Your task to perform on an android device: Go to Yahoo.com Image 0: 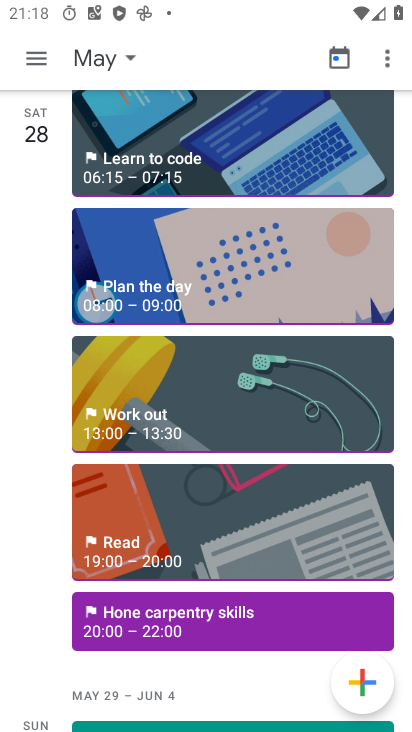
Step 0: press home button
Your task to perform on an android device: Go to Yahoo.com Image 1: 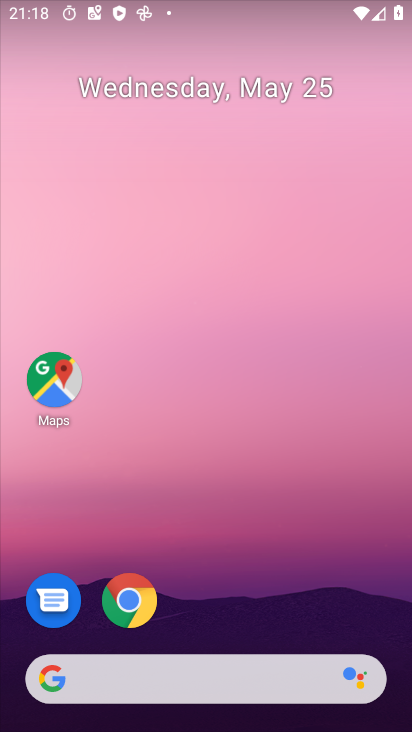
Step 1: drag from (375, 561) to (313, 75)
Your task to perform on an android device: Go to Yahoo.com Image 2: 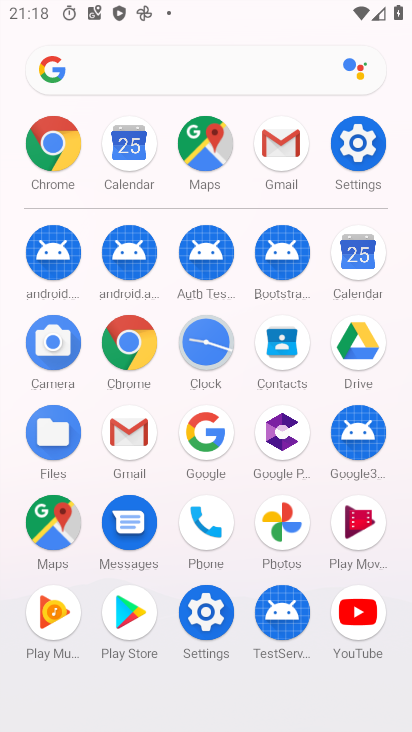
Step 2: click (135, 335)
Your task to perform on an android device: Go to Yahoo.com Image 3: 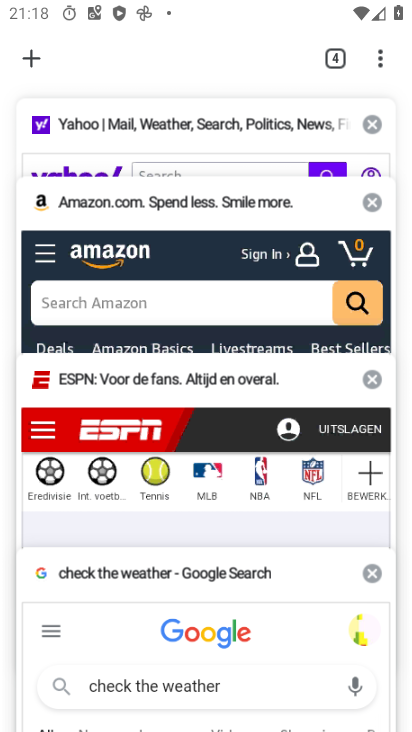
Step 3: click (23, 59)
Your task to perform on an android device: Go to Yahoo.com Image 4: 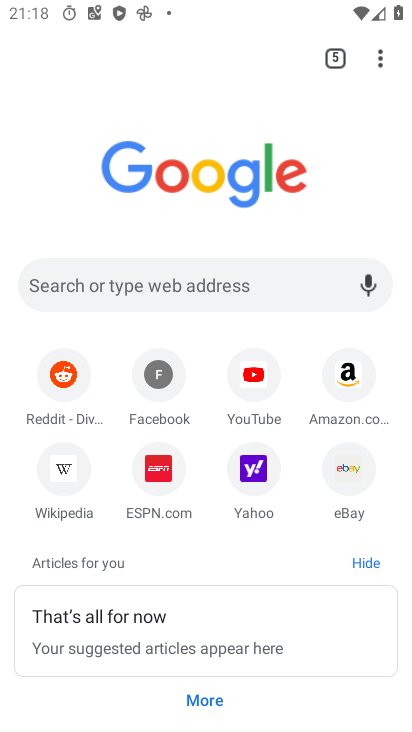
Step 4: click (191, 297)
Your task to perform on an android device: Go to Yahoo.com Image 5: 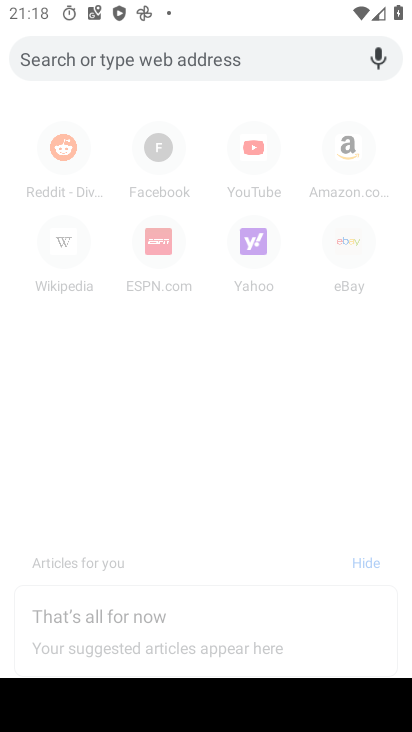
Step 5: type "yahoo.com'"
Your task to perform on an android device: Go to Yahoo.com Image 6: 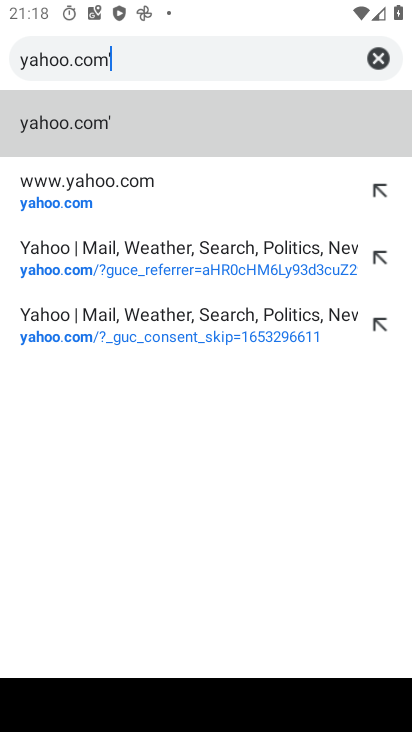
Step 6: click (52, 127)
Your task to perform on an android device: Go to Yahoo.com Image 7: 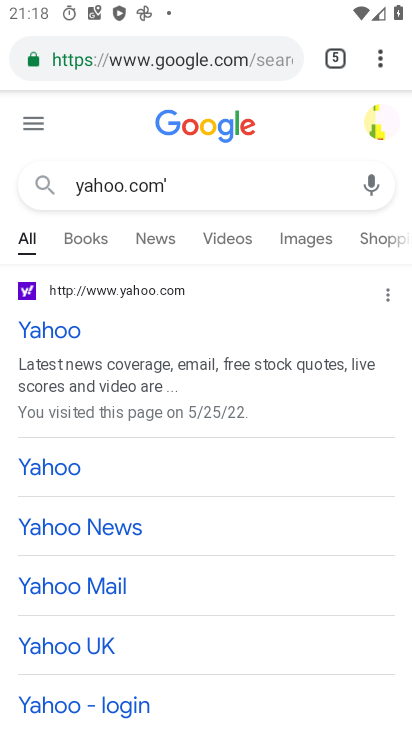
Step 7: click (47, 326)
Your task to perform on an android device: Go to Yahoo.com Image 8: 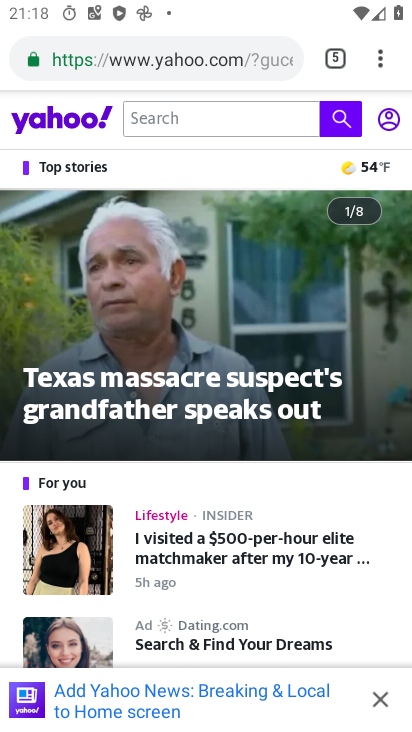
Step 8: task complete